Your task to perform on an android device: turn on the 12-hour format for clock Image 0: 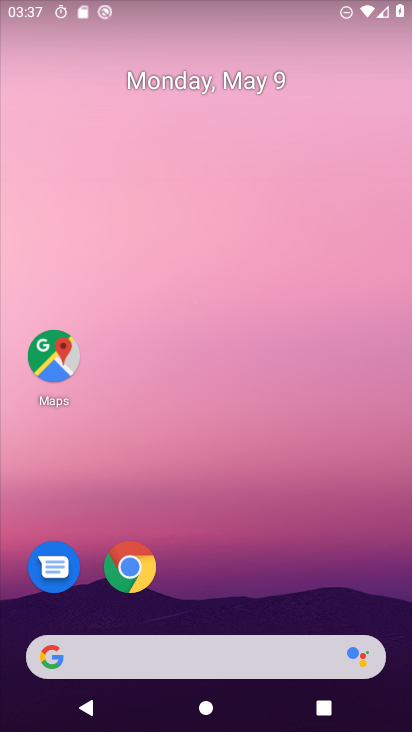
Step 0: drag from (219, 600) to (277, 107)
Your task to perform on an android device: turn on the 12-hour format for clock Image 1: 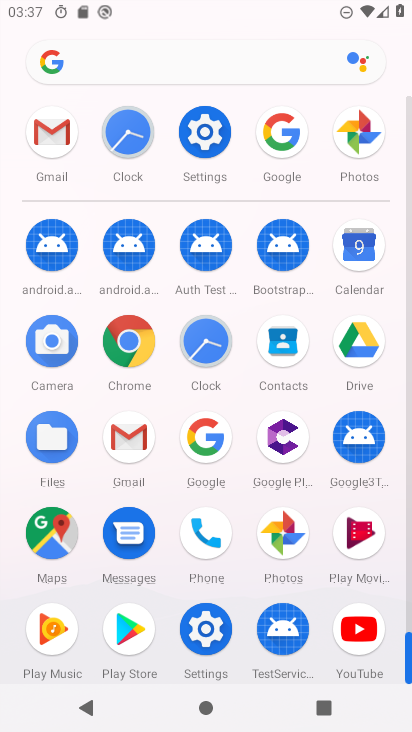
Step 1: click (208, 344)
Your task to perform on an android device: turn on the 12-hour format for clock Image 2: 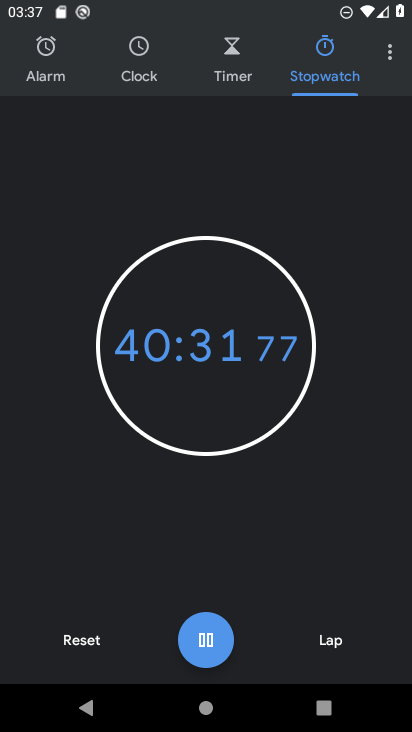
Step 2: click (394, 67)
Your task to perform on an android device: turn on the 12-hour format for clock Image 3: 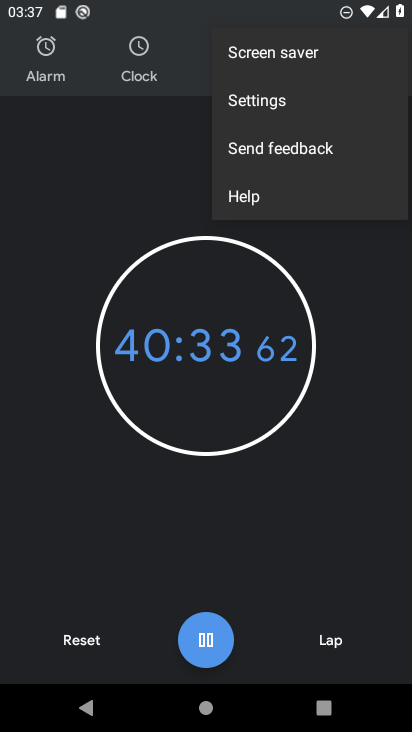
Step 3: click (261, 98)
Your task to perform on an android device: turn on the 12-hour format for clock Image 4: 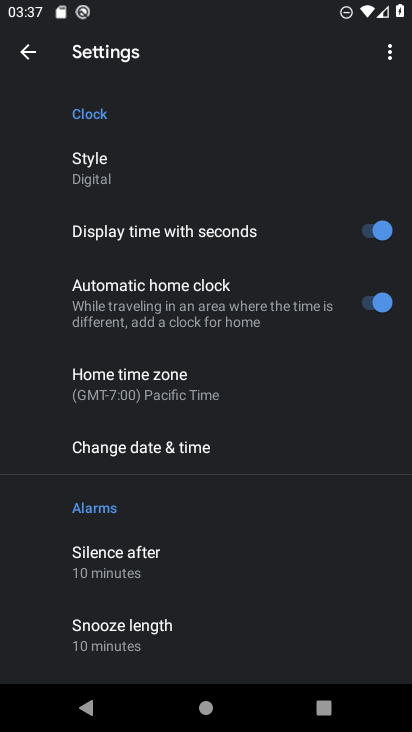
Step 4: click (168, 450)
Your task to perform on an android device: turn on the 12-hour format for clock Image 5: 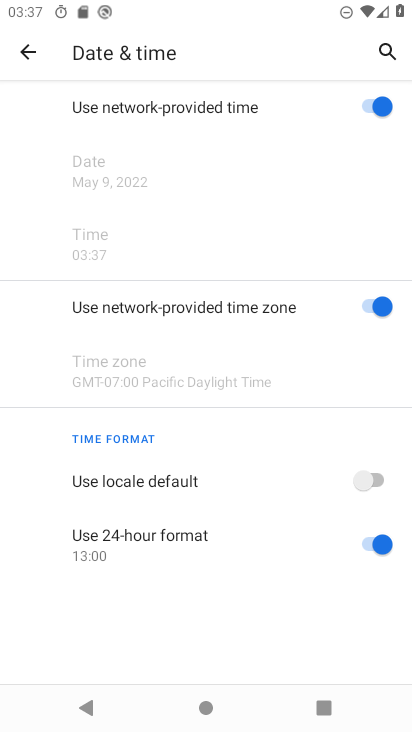
Step 5: click (377, 475)
Your task to perform on an android device: turn on the 12-hour format for clock Image 6: 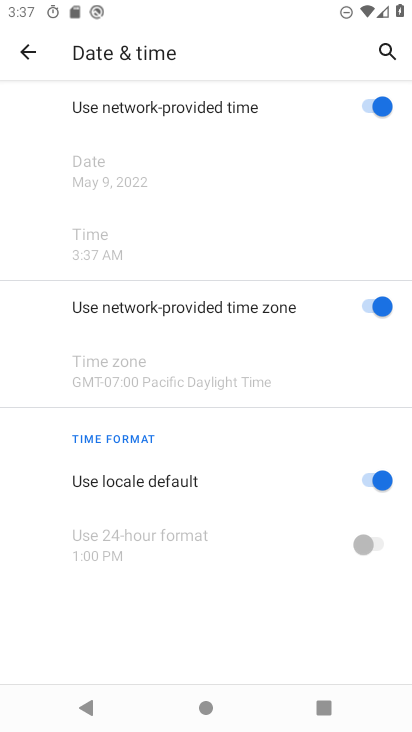
Step 6: task complete